Your task to perform on an android device: toggle data saver in the chrome app Image 0: 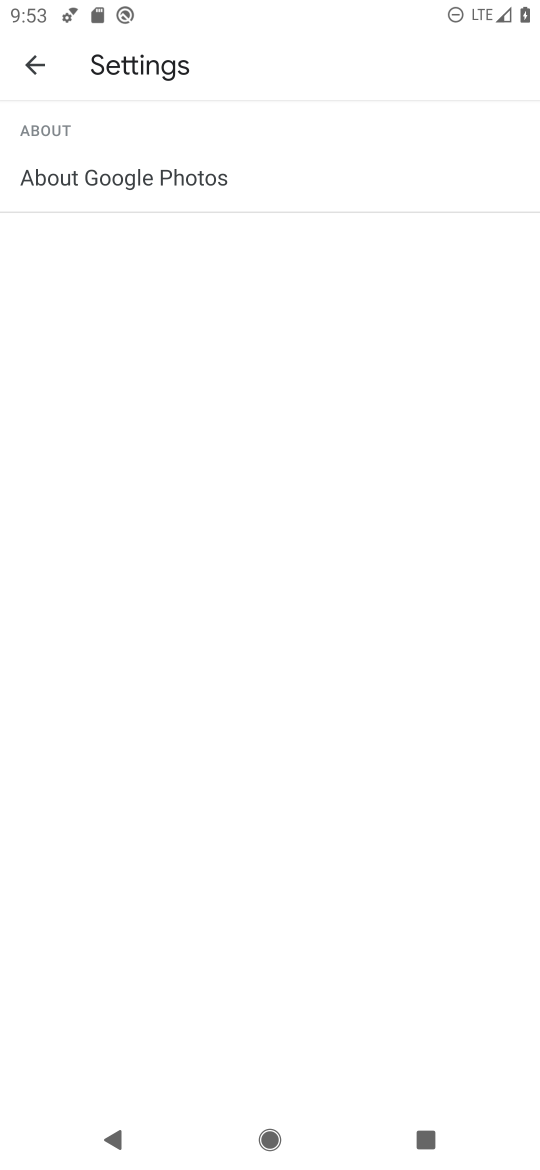
Step 0: press home button
Your task to perform on an android device: toggle data saver in the chrome app Image 1: 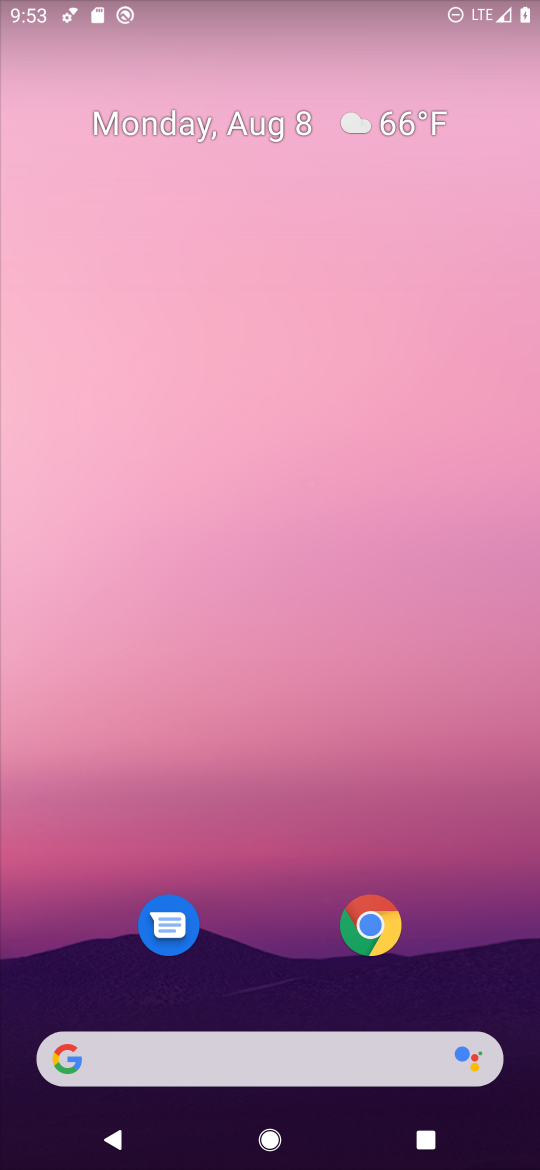
Step 1: drag from (301, 1008) to (344, 208)
Your task to perform on an android device: toggle data saver in the chrome app Image 2: 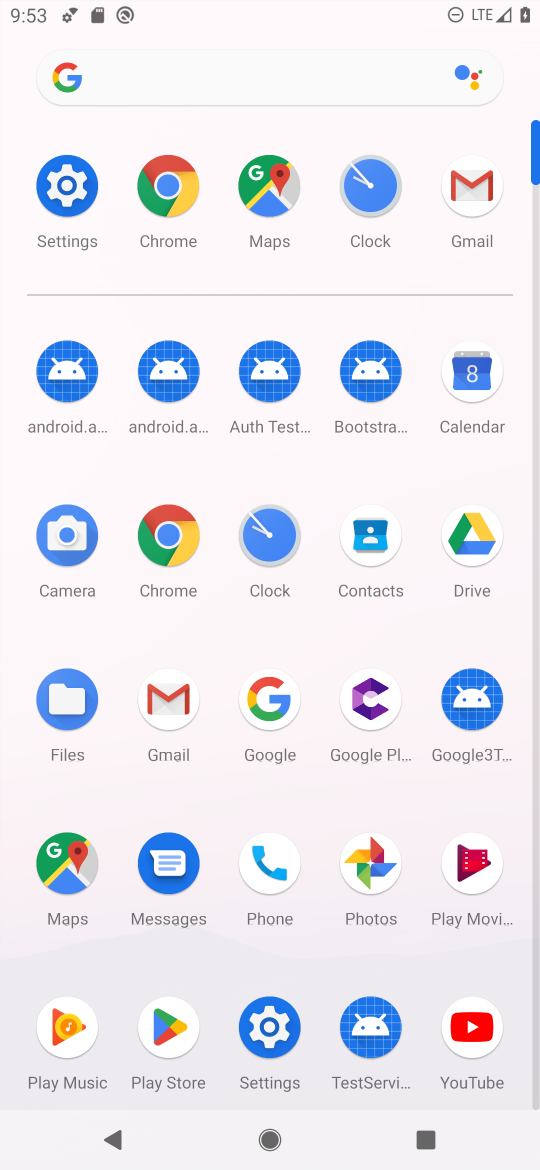
Step 2: click (177, 534)
Your task to perform on an android device: toggle data saver in the chrome app Image 3: 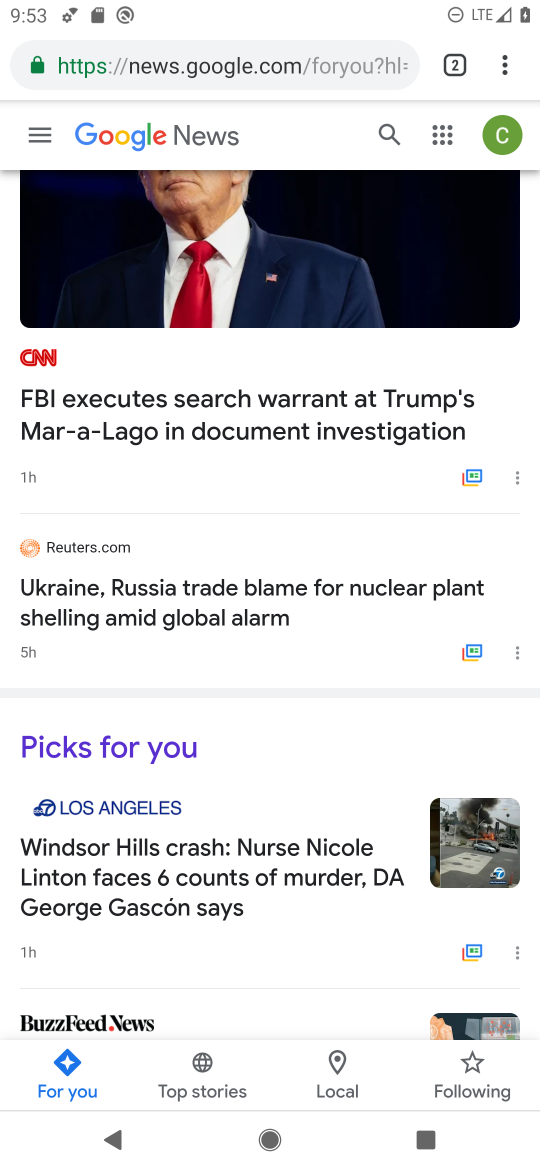
Step 3: drag from (520, 62) to (251, 842)
Your task to perform on an android device: toggle data saver in the chrome app Image 4: 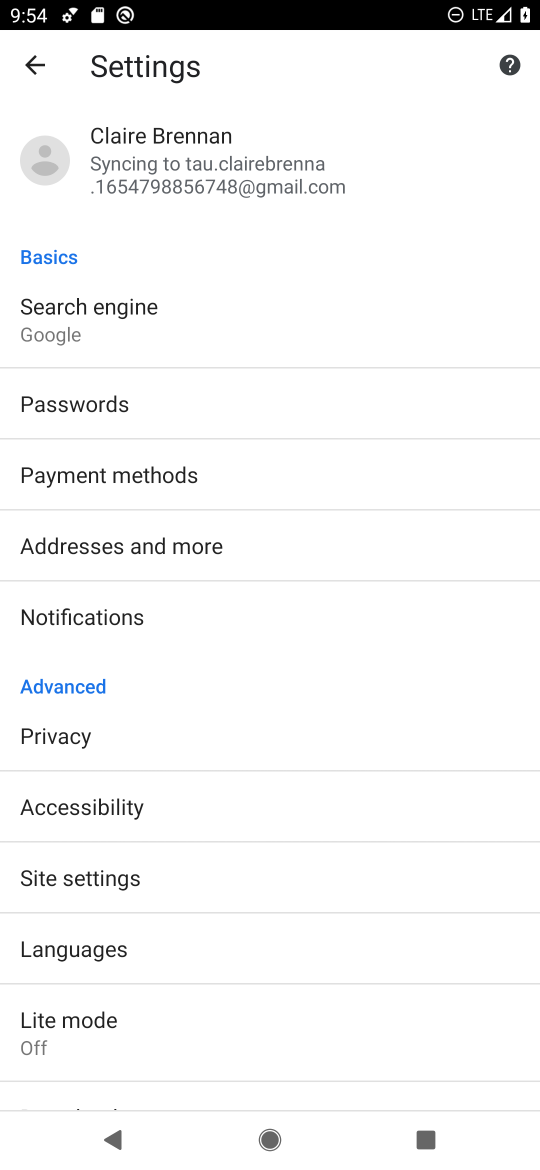
Step 4: drag from (143, 993) to (425, 197)
Your task to perform on an android device: toggle data saver in the chrome app Image 5: 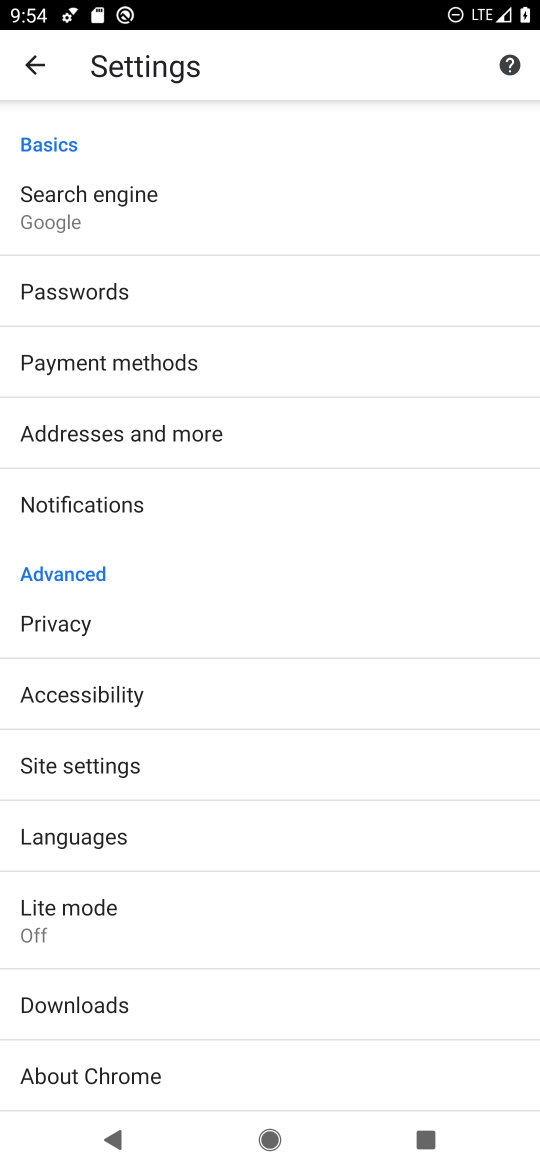
Step 5: click (137, 922)
Your task to perform on an android device: toggle data saver in the chrome app Image 6: 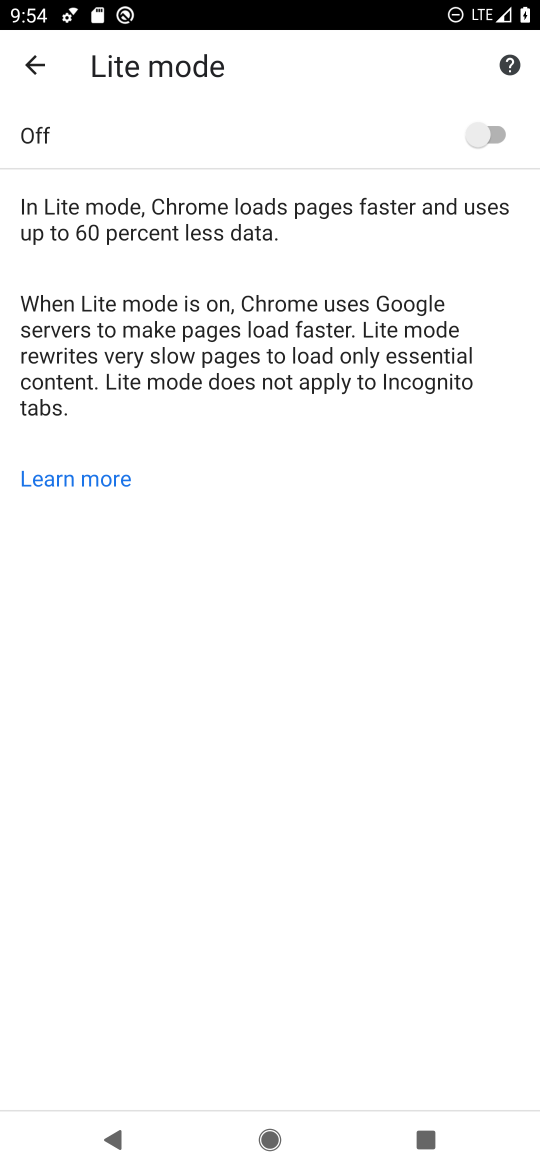
Step 6: click (509, 140)
Your task to perform on an android device: toggle data saver in the chrome app Image 7: 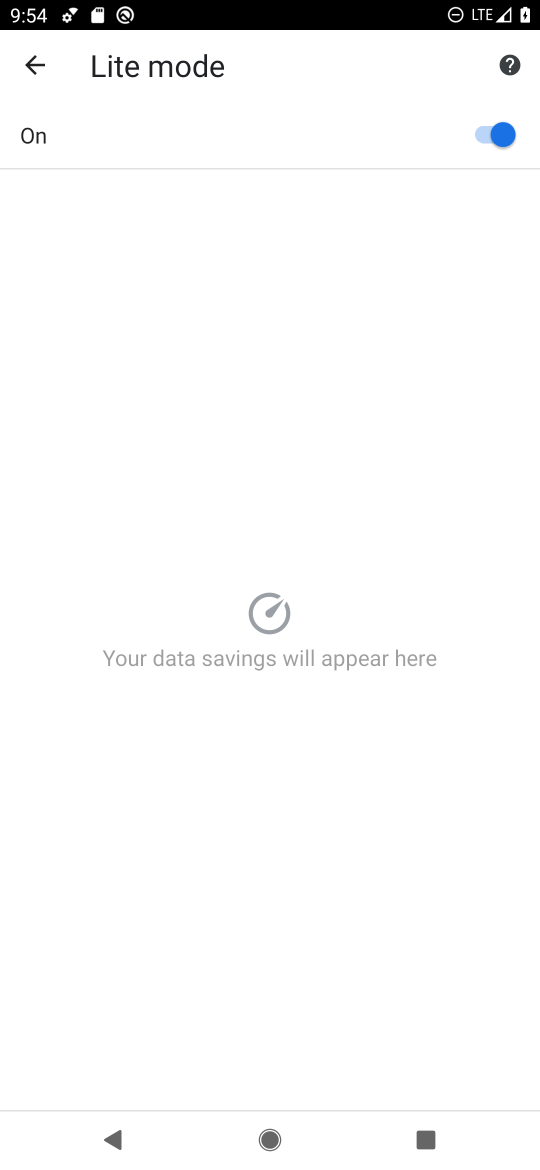
Step 7: task complete